Your task to perform on an android device: empty trash in google photos Image 0: 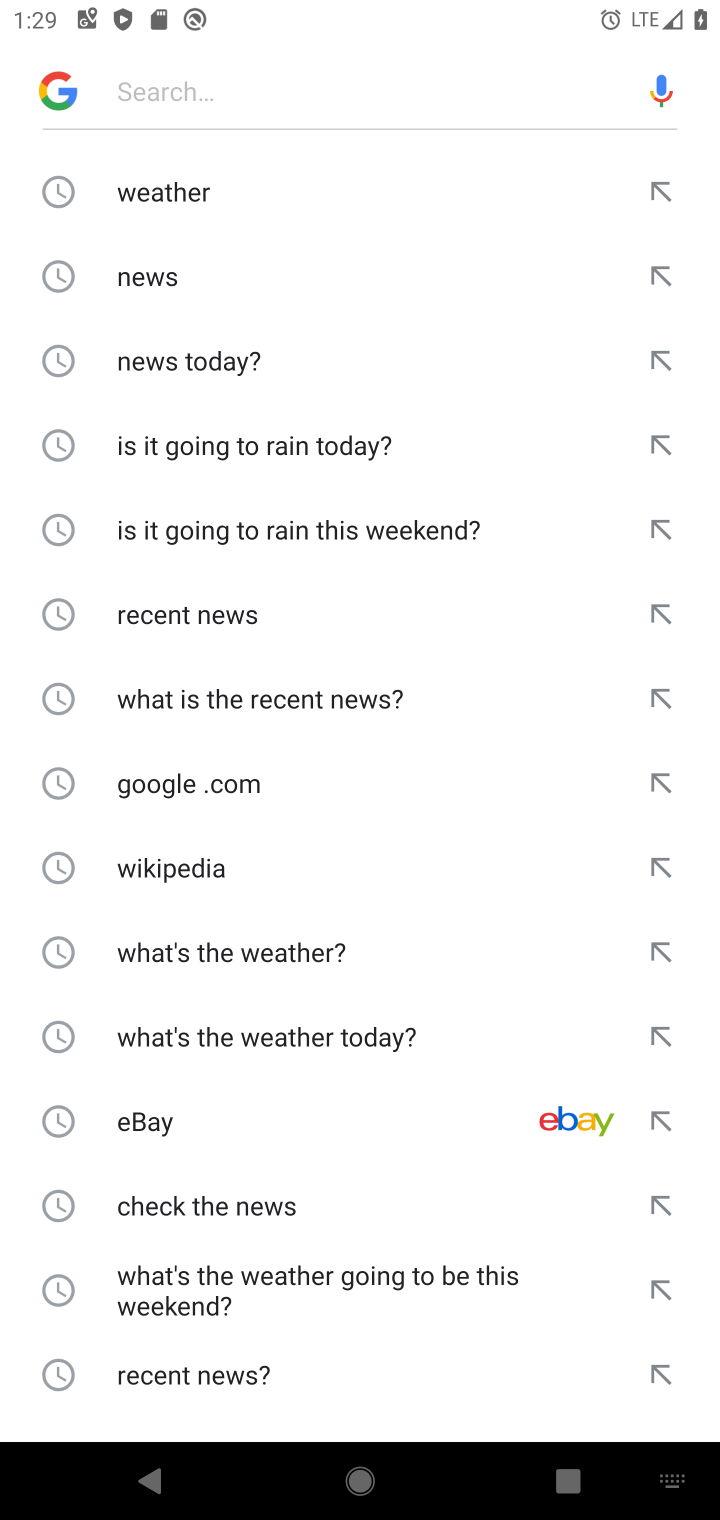
Step 0: press home button
Your task to perform on an android device: empty trash in google photos Image 1: 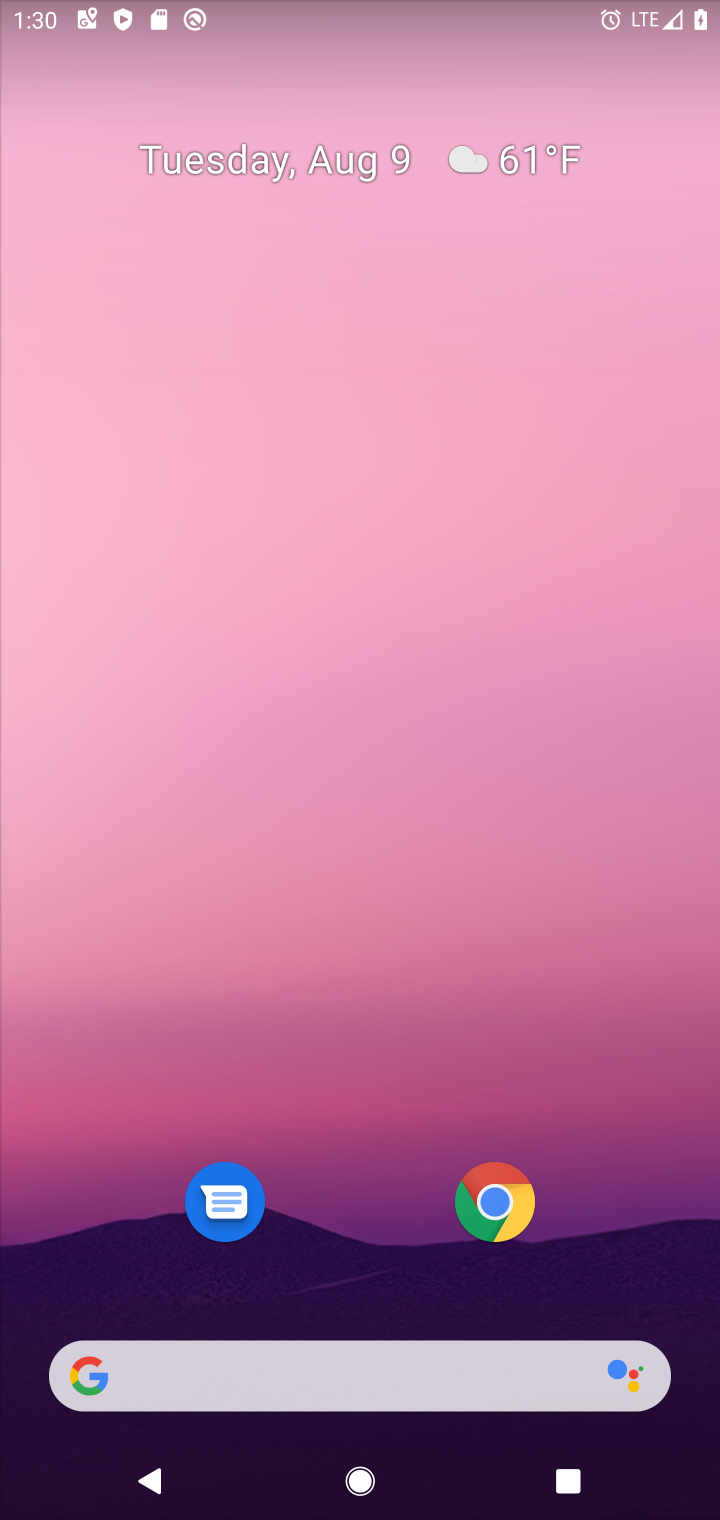
Step 1: drag from (374, 1280) to (254, 323)
Your task to perform on an android device: empty trash in google photos Image 2: 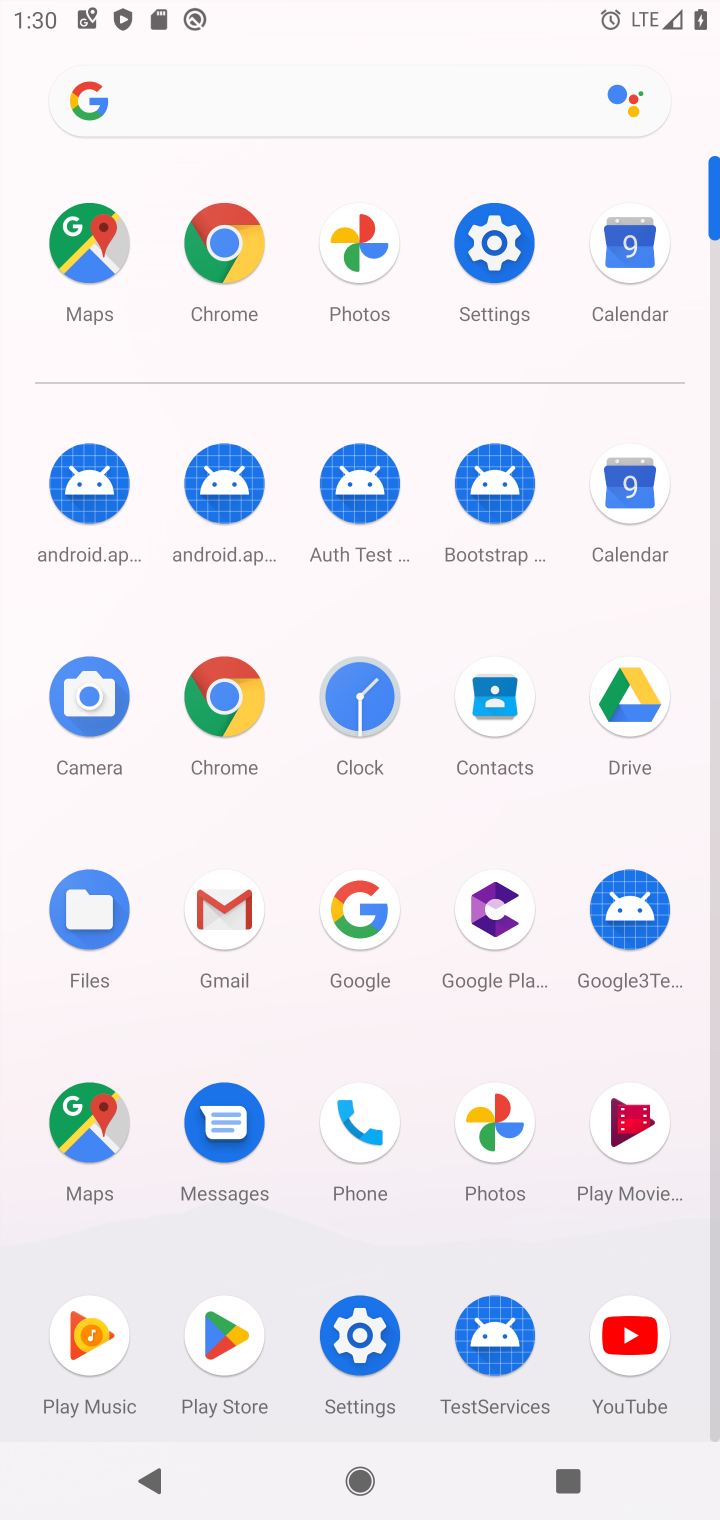
Step 2: click (494, 1134)
Your task to perform on an android device: empty trash in google photos Image 3: 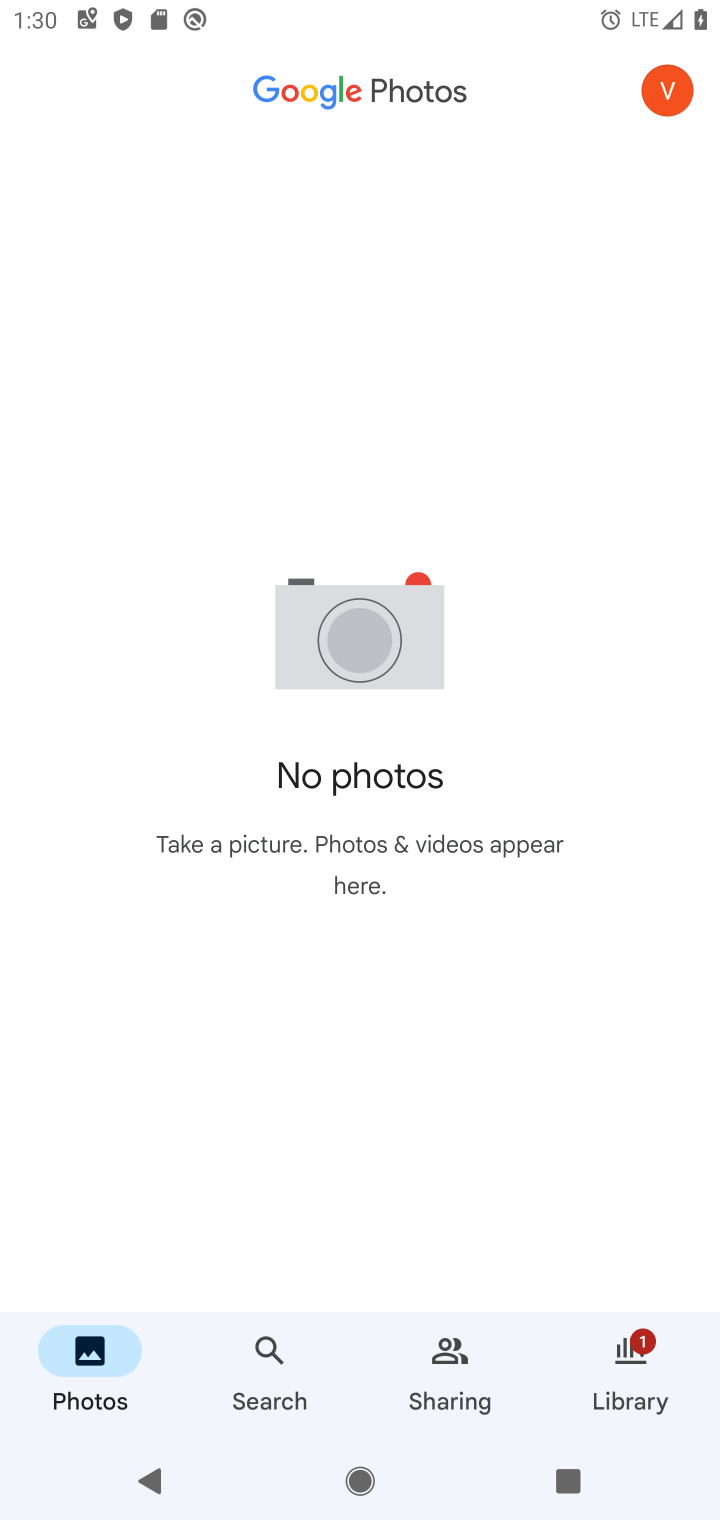
Step 3: click (626, 1378)
Your task to perform on an android device: empty trash in google photos Image 4: 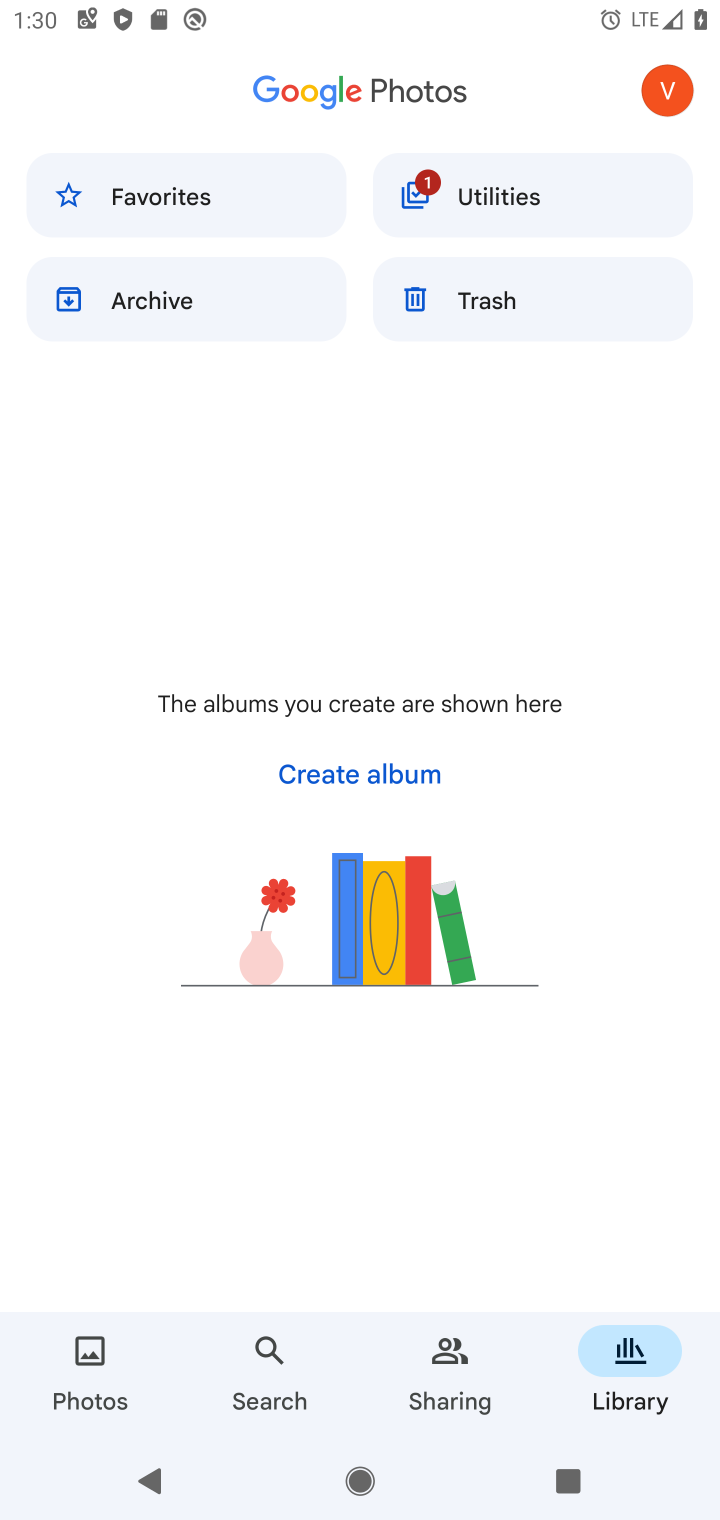
Step 4: click (478, 295)
Your task to perform on an android device: empty trash in google photos Image 5: 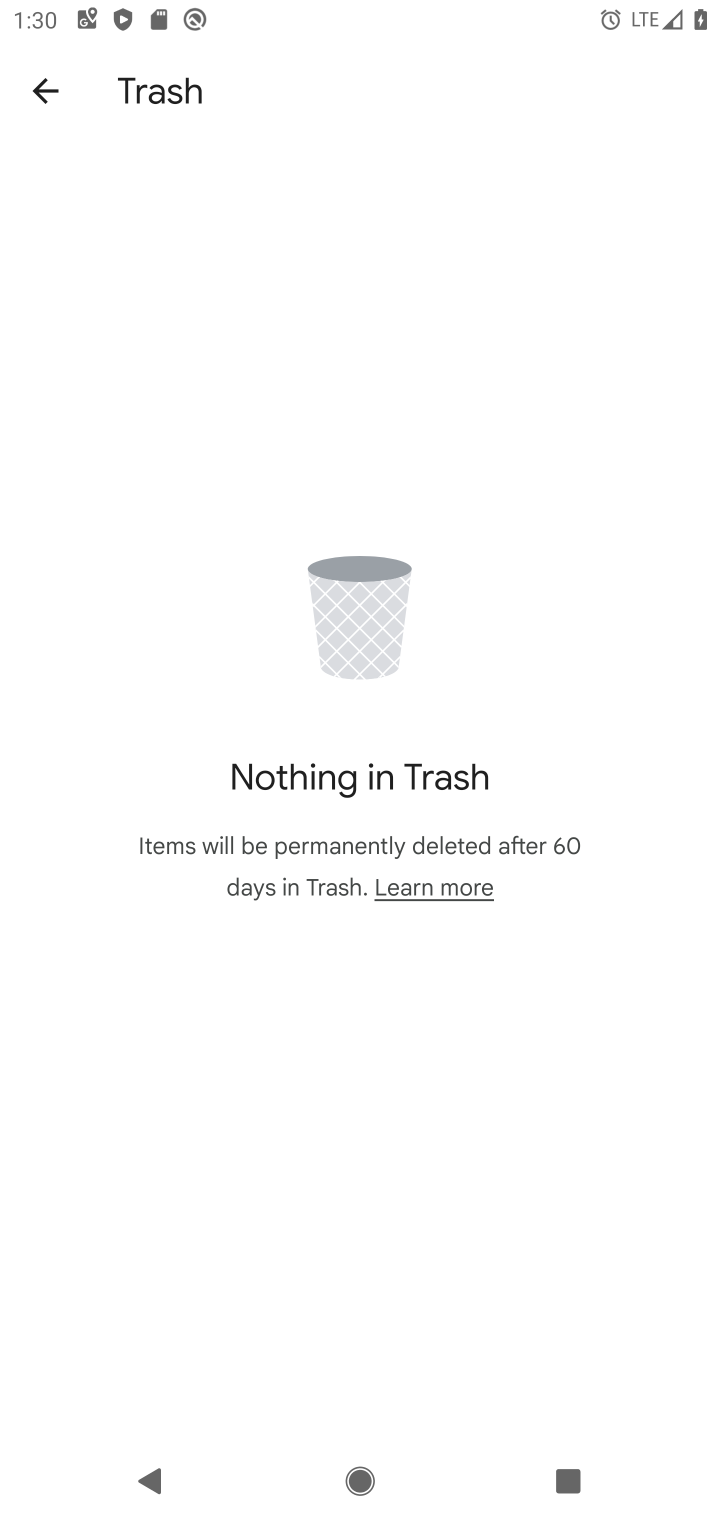
Step 5: task complete